Your task to perform on an android device: open a bookmark in the chrome app Image 0: 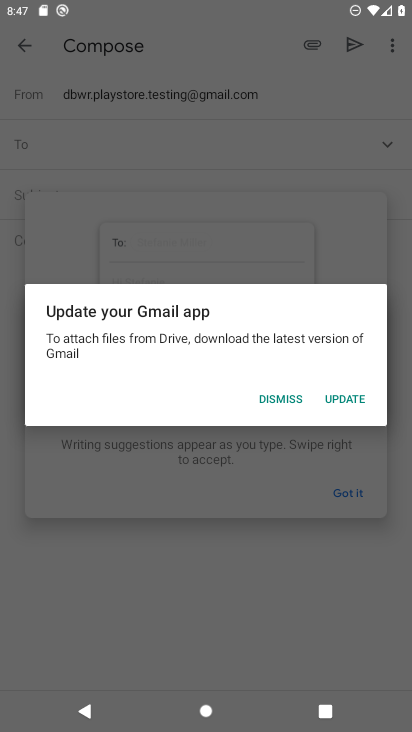
Step 0: press home button
Your task to perform on an android device: open a bookmark in the chrome app Image 1: 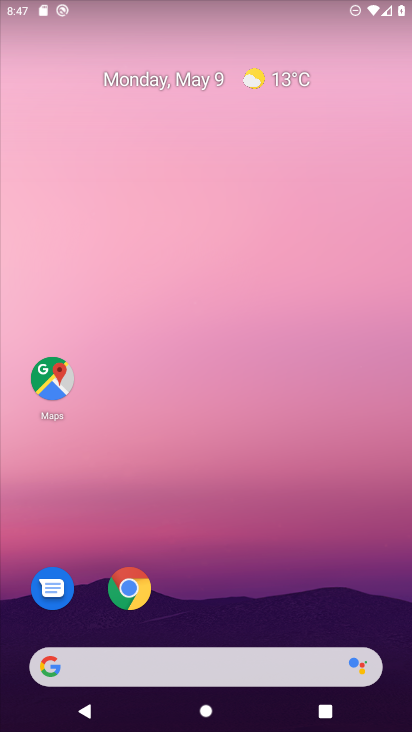
Step 1: click (147, 596)
Your task to perform on an android device: open a bookmark in the chrome app Image 2: 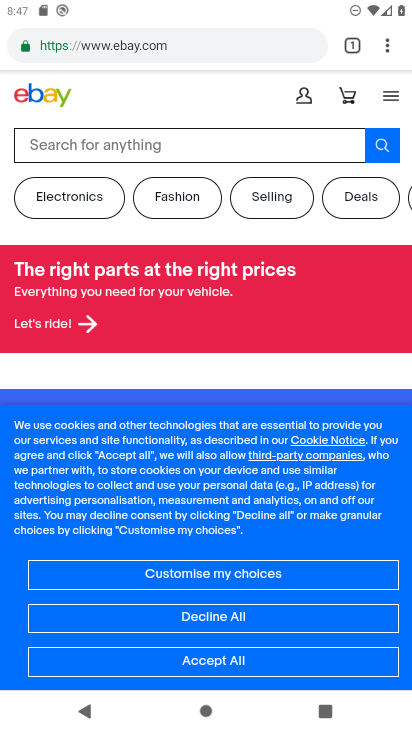
Step 2: click (391, 45)
Your task to perform on an android device: open a bookmark in the chrome app Image 3: 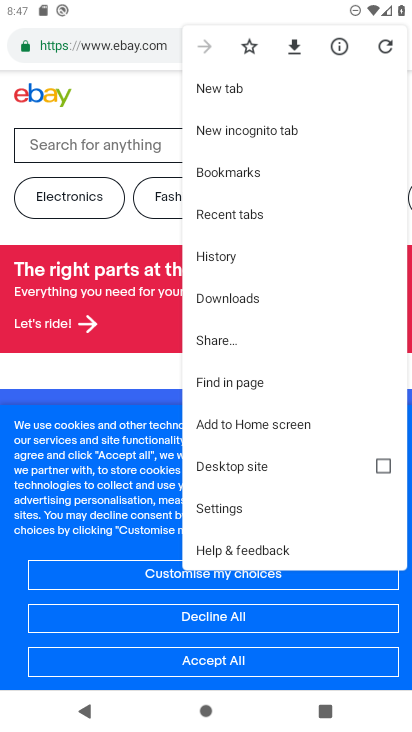
Step 3: click (234, 155)
Your task to perform on an android device: open a bookmark in the chrome app Image 4: 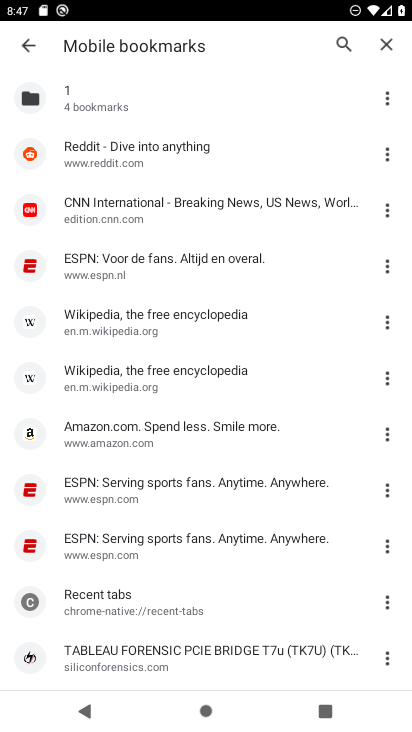
Step 4: click (204, 186)
Your task to perform on an android device: open a bookmark in the chrome app Image 5: 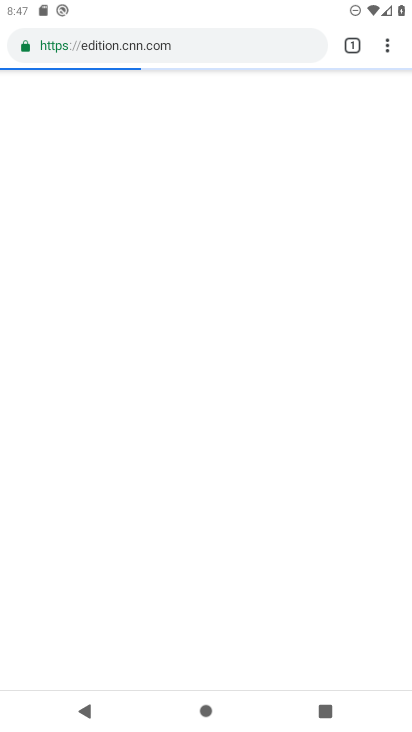
Step 5: task complete